Your task to perform on an android device: refresh tabs in the chrome app Image 0: 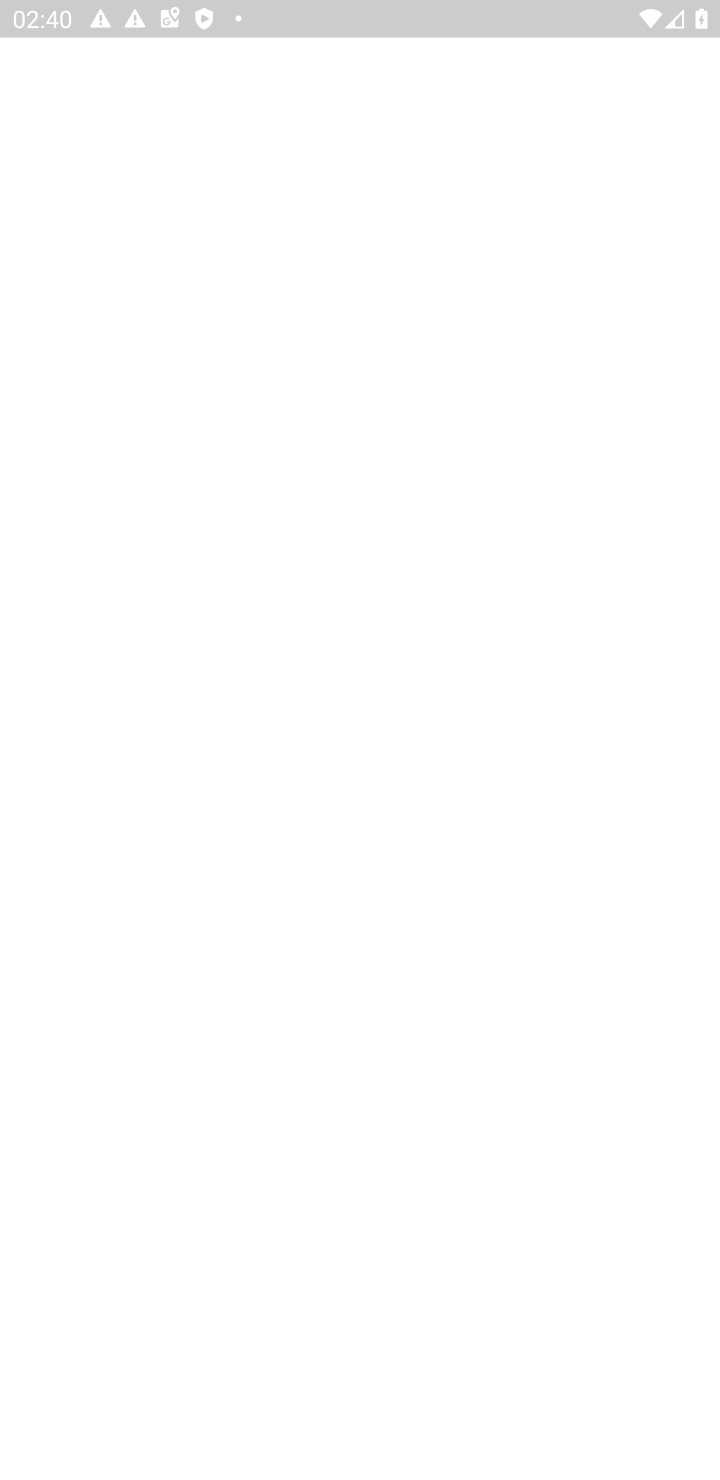
Step 0: press home button
Your task to perform on an android device: refresh tabs in the chrome app Image 1: 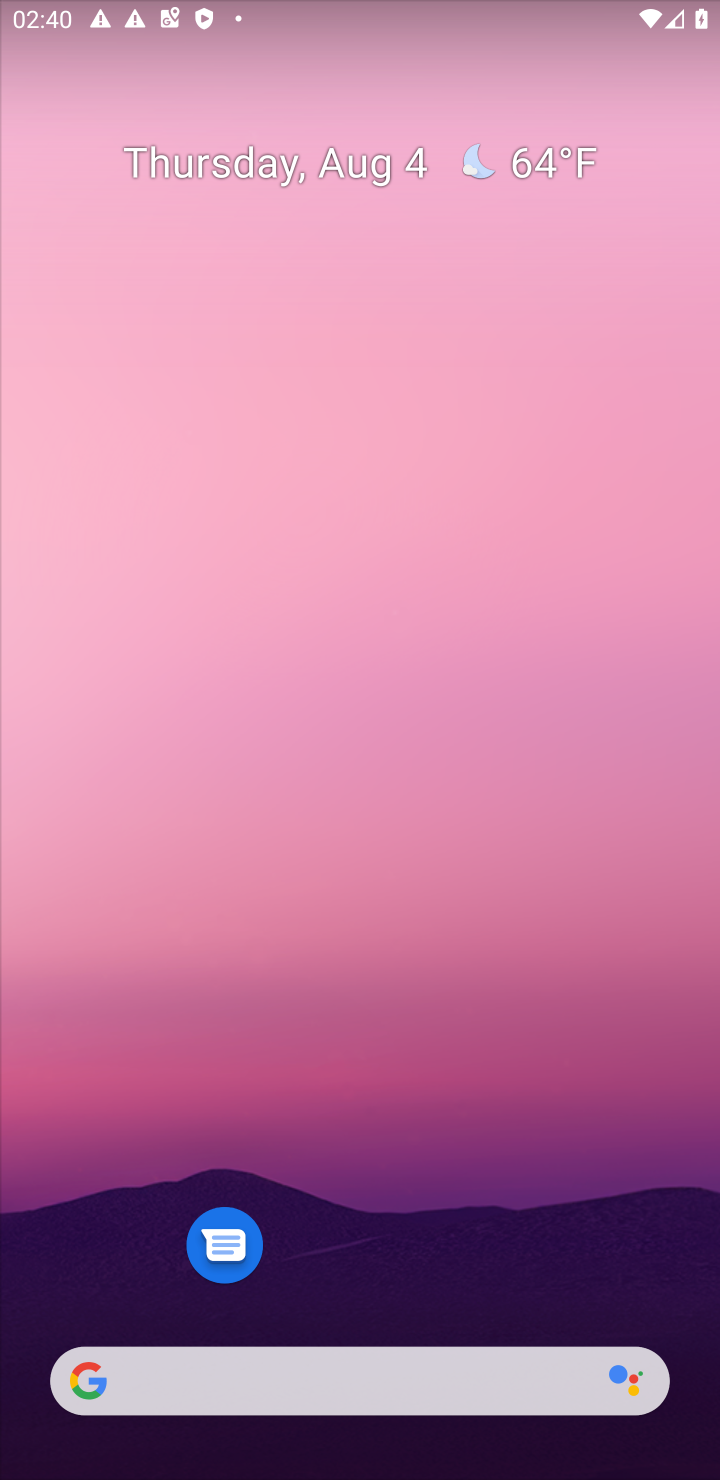
Step 1: drag from (532, 1264) to (651, 12)
Your task to perform on an android device: refresh tabs in the chrome app Image 2: 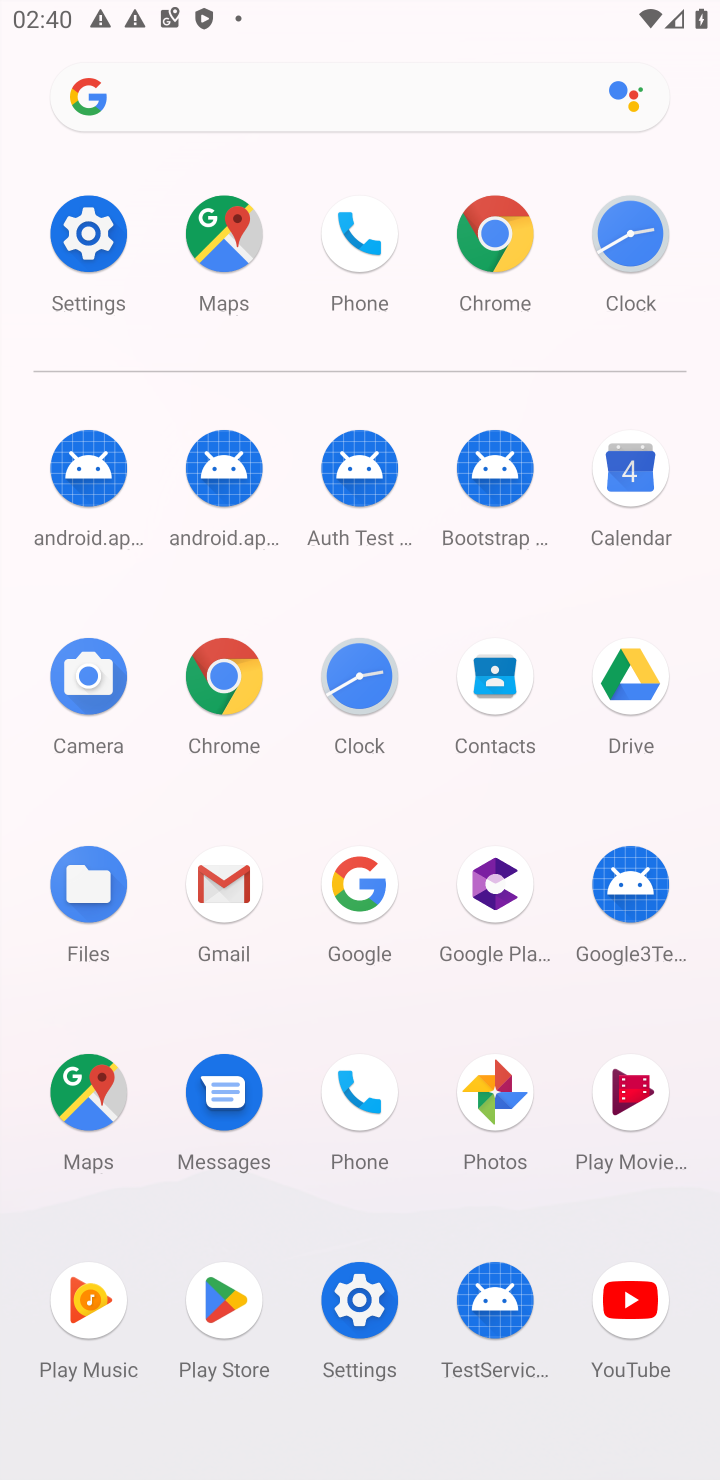
Step 2: click (242, 702)
Your task to perform on an android device: refresh tabs in the chrome app Image 3: 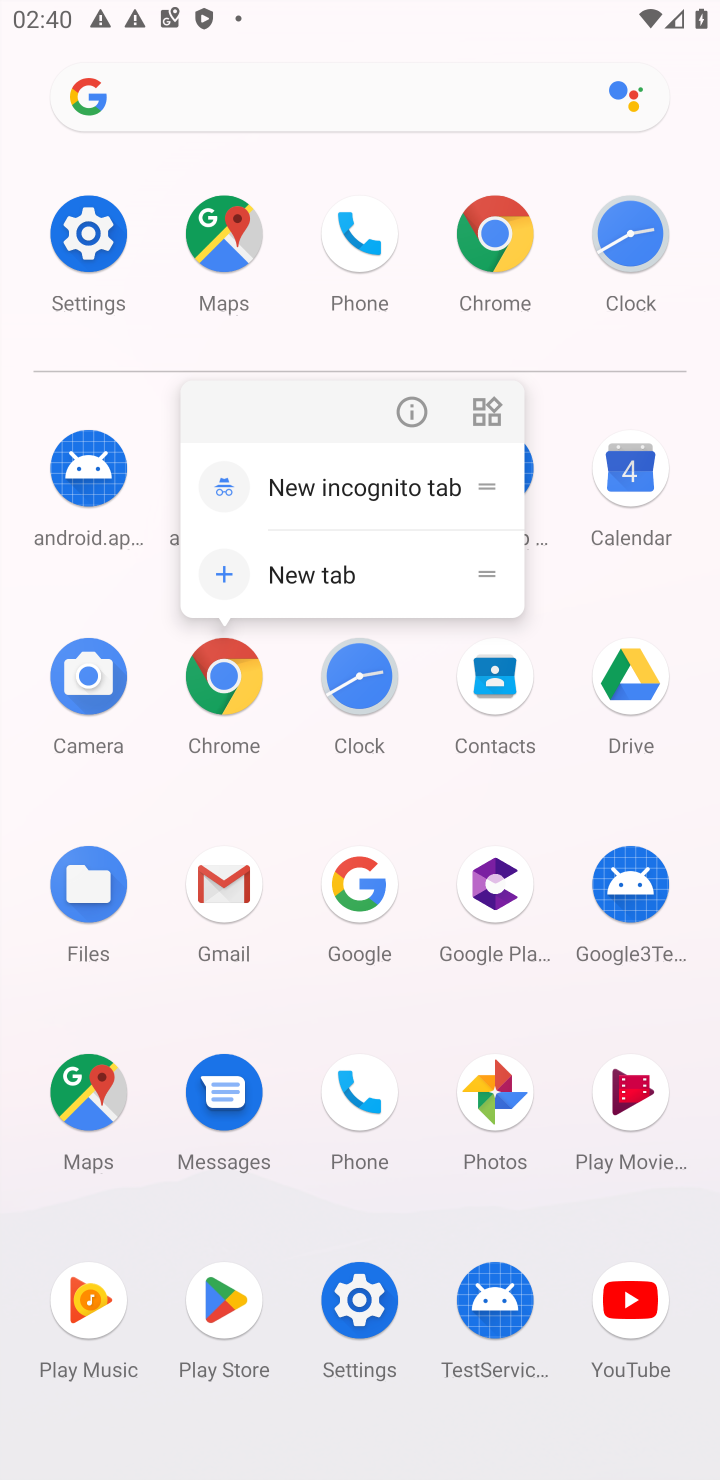
Step 3: click (225, 699)
Your task to perform on an android device: refresh tabs in the chrome app Image 4: 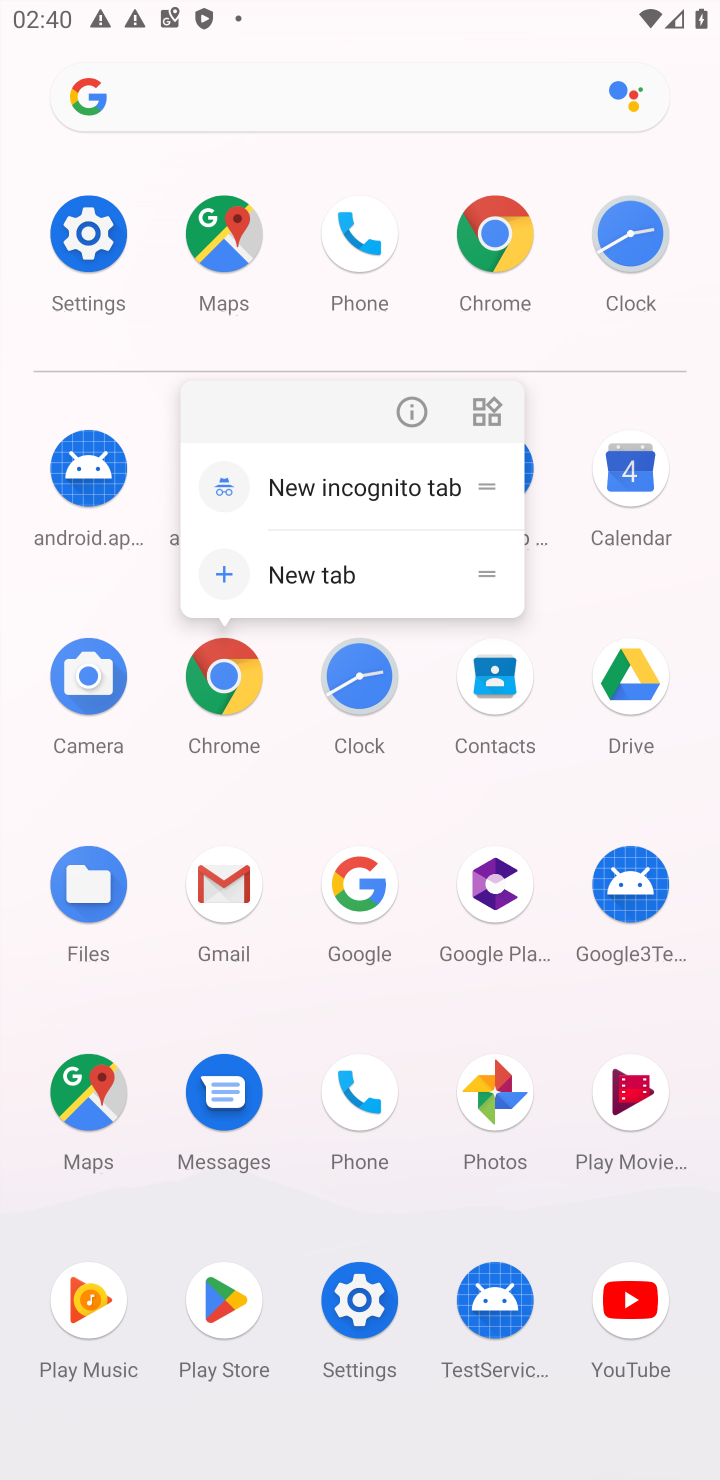
Step 4: click (248, 724)
Your task to perform on an android device: refresh tabs in the chrome app Image 5: 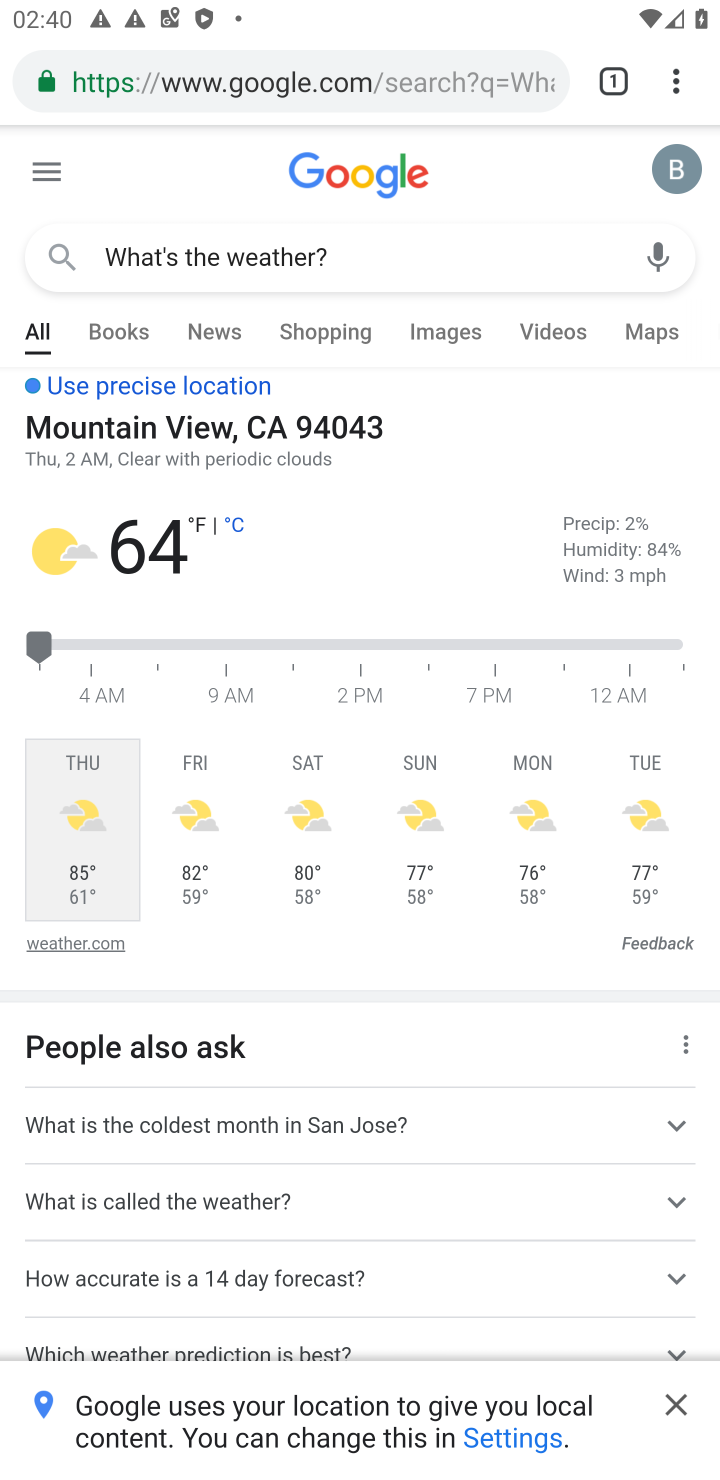
Step 5: click (701, 67)
Your task to perform on an android device: refresh tabs in the chrome app Image 6: 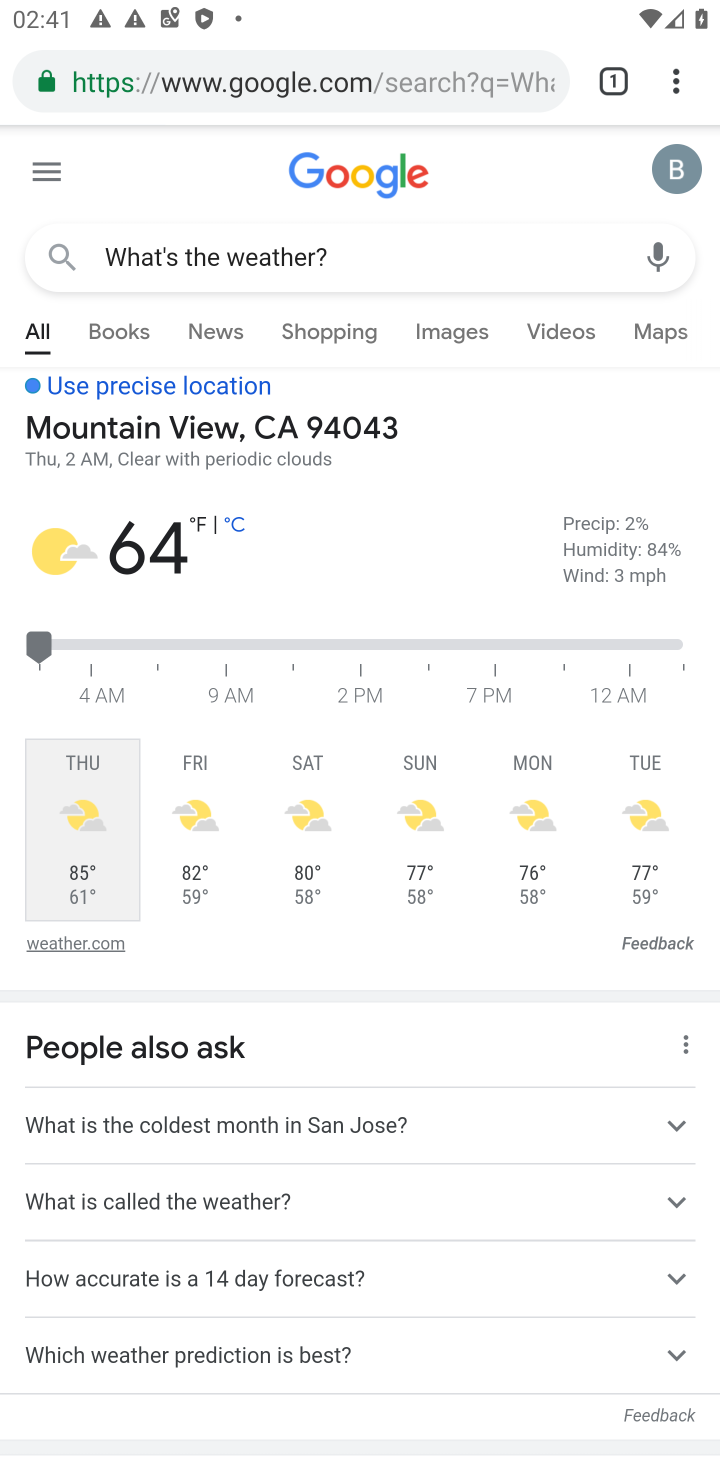
Step 6: click (672, 72)
Your task to perform on an android device: refresh tabs in the chrome app Image 7: 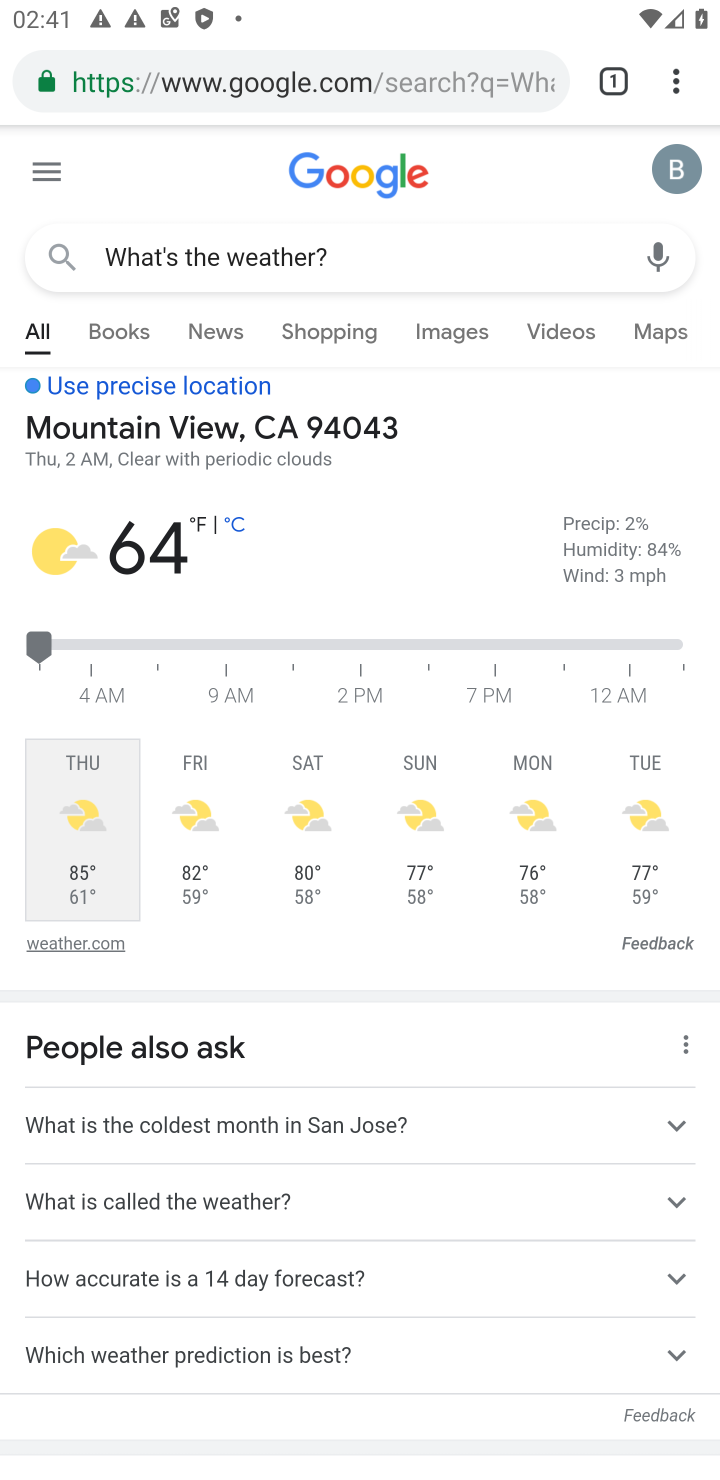
Step 7: click (672, 72)
Your task to perform on an android device: refresh tabs in the chrome app Image 8: 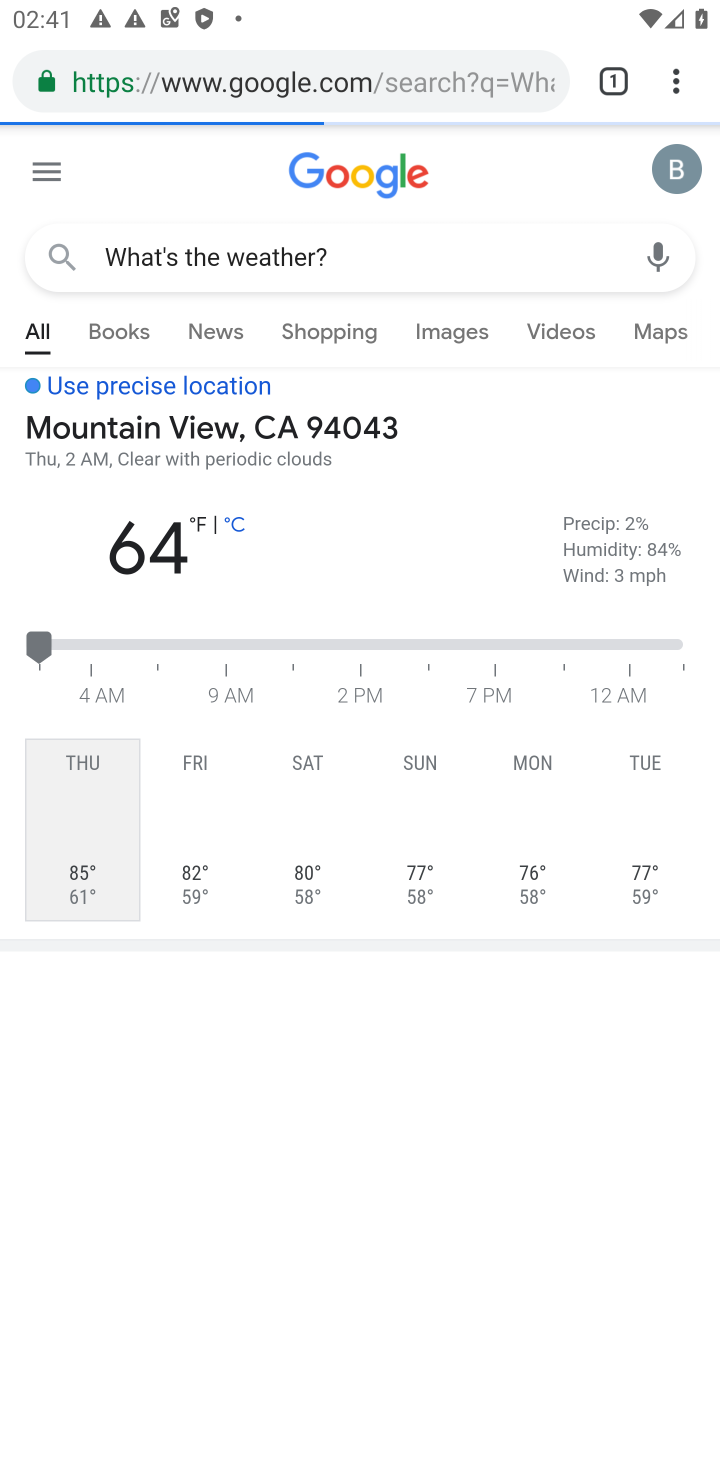
Step 8: click (672, 72)
Your task to perform on an android device: refresh tabs in the chrome app Image 9: 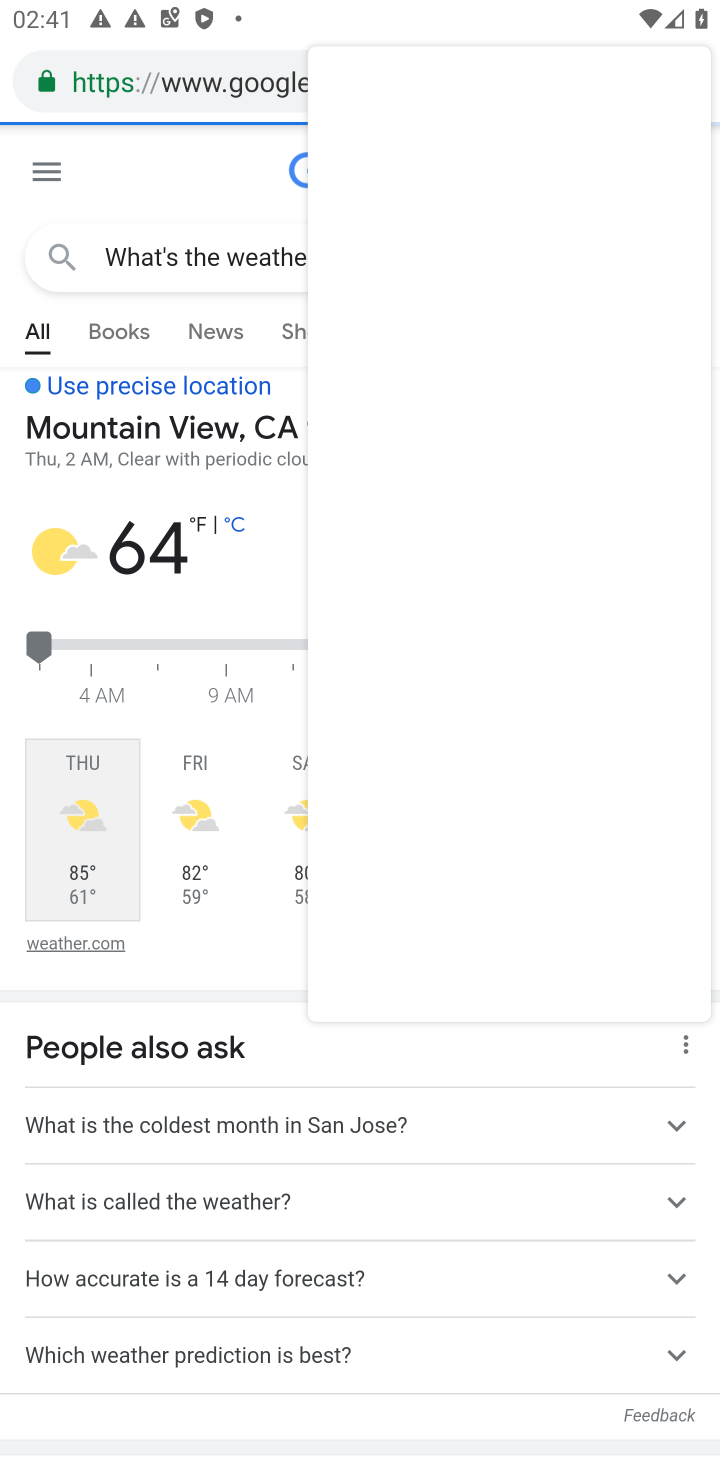
Step 9: click (672, 72)
Your task to perform on an android device: refresh tabs in the chrome app Image 10: 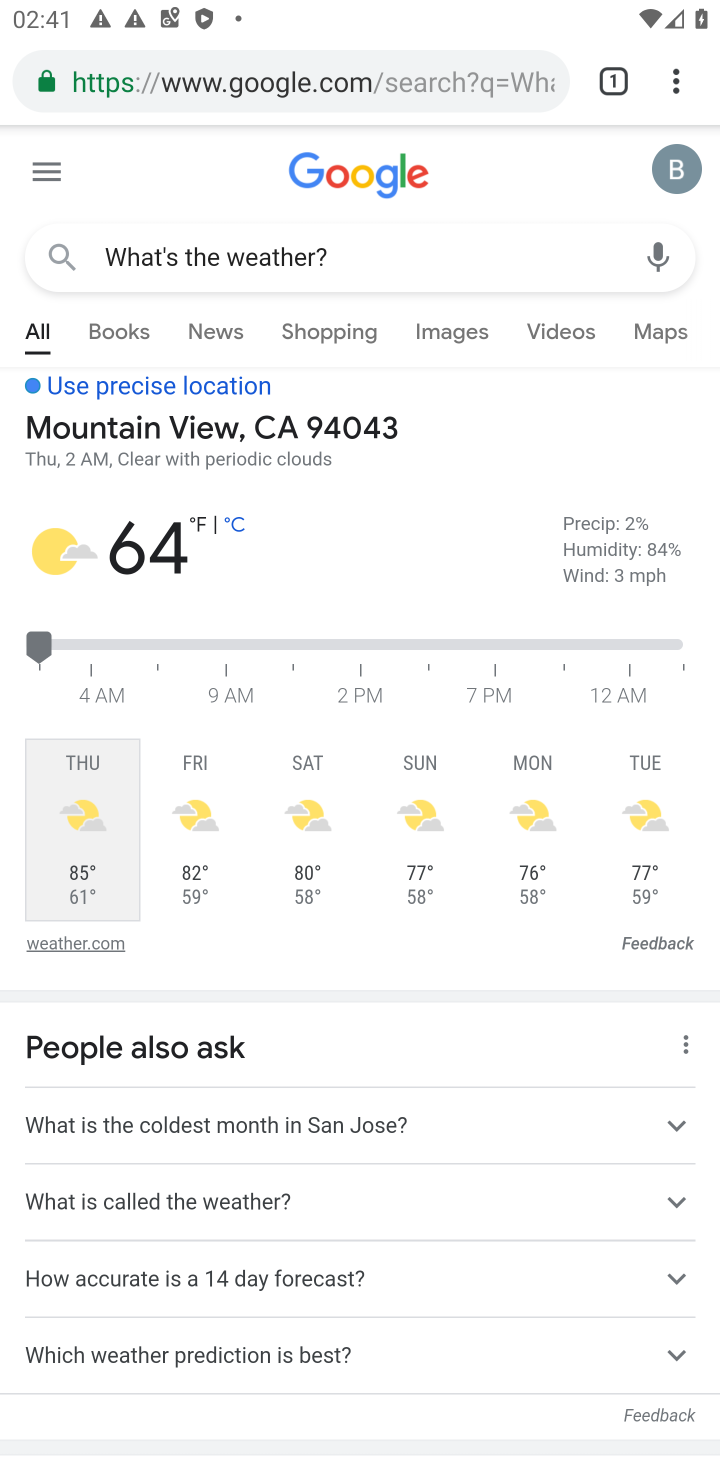
Step 10: click (672, 72)
Your task to perform on an android device: refresh tabs in the chrome app Image 11: 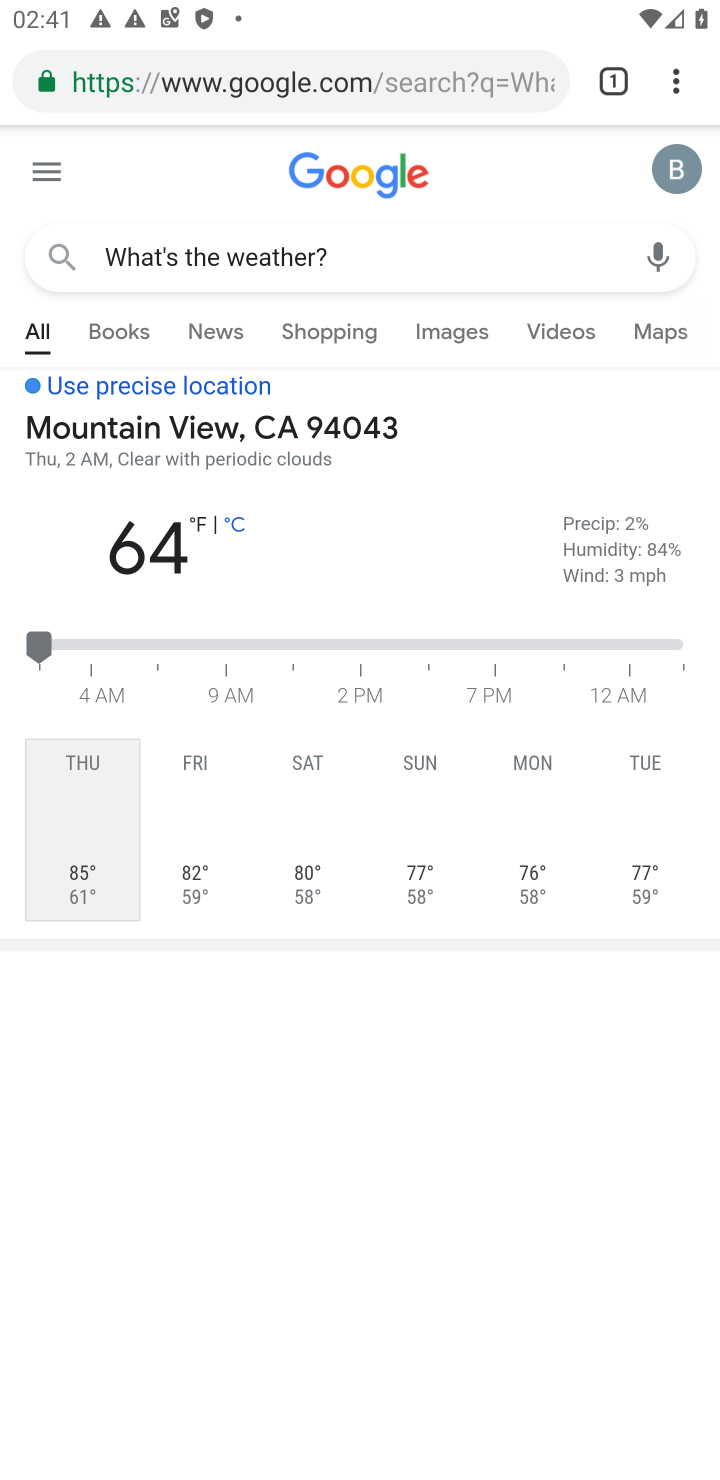
Step 11: click (690, 39)
Your task to perform on an android device: refresh tabs in the chrome app Image 12: 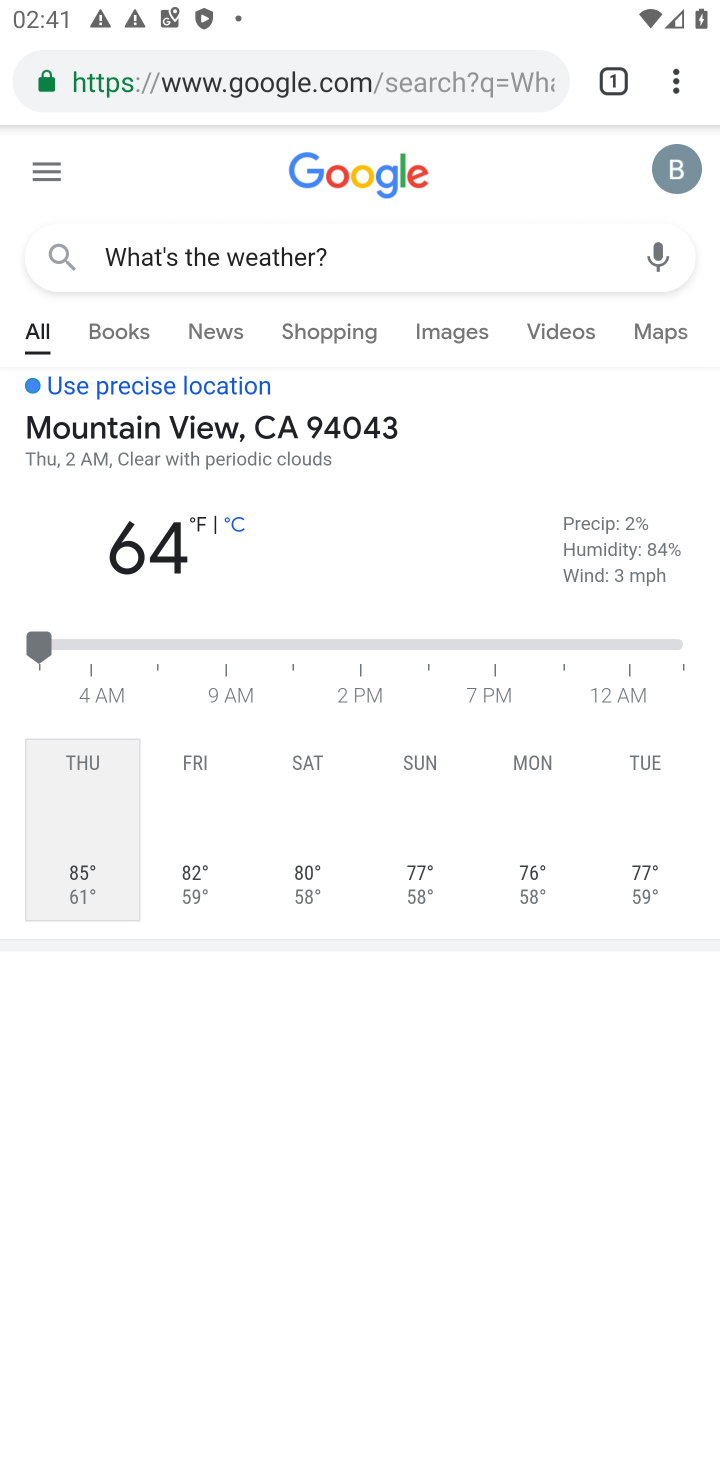
Step 12: task complete